Your task to perform on an android device: change the clock style Image 0: 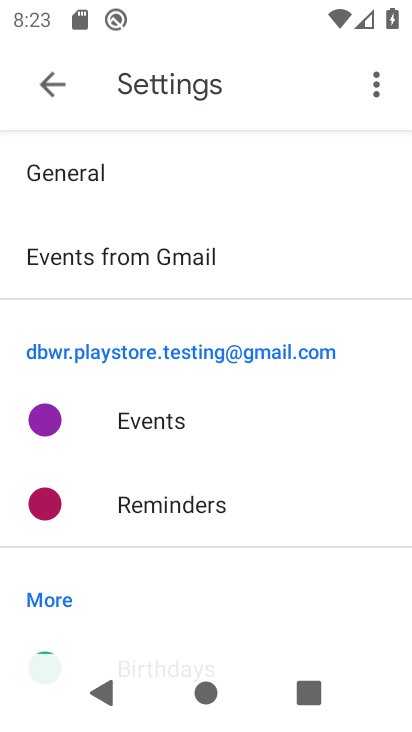
Step 0: press home button
Your task to perform on an android device: change the clock style Image 1: 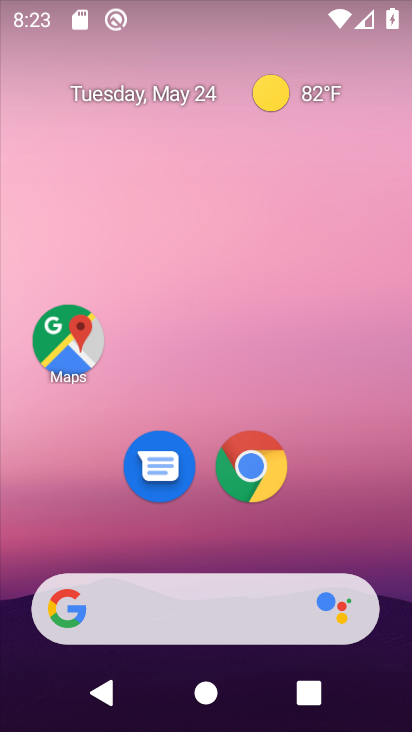
Step 1: drag from (158, 570) to (222, 216)
Your task to perform on an android device: change the clock style Image 2: 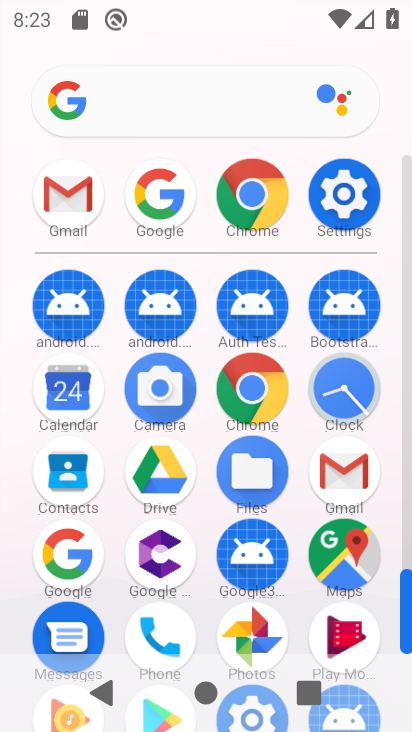
Step 2: click (330, 400)
Your task to perform on an android device: change the clock style Image 3: 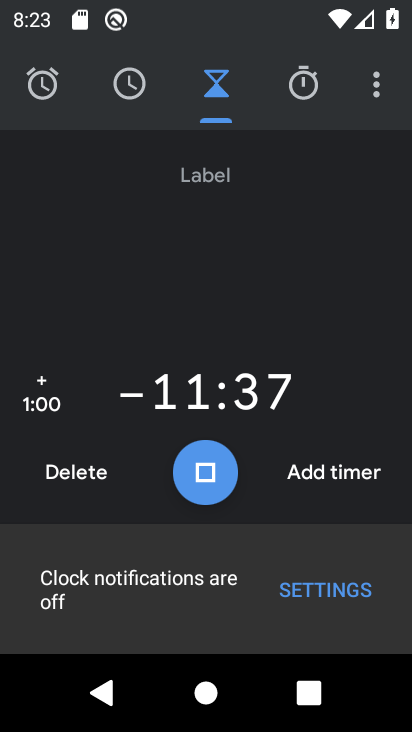
Step 3: click (369, 83)
Your task to perform on an android device: change the clock style Image 4: 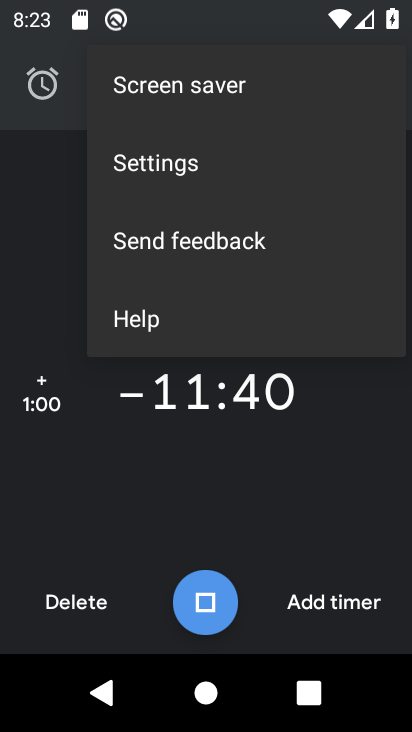
Step 4: click (172, 158)
Your task to perform on an android device: change the clock style Image 5: 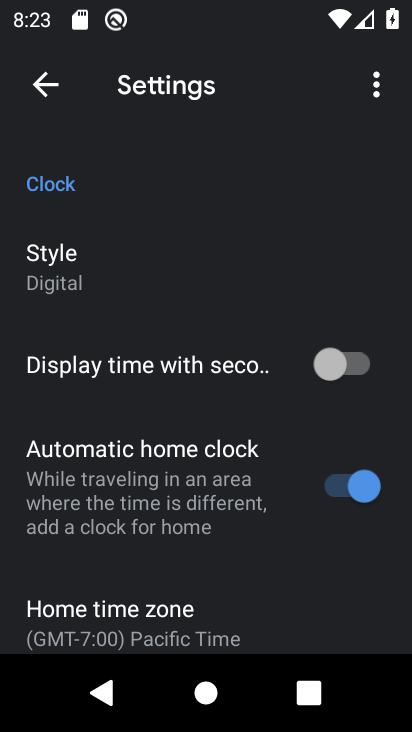
Step 5: drag from (66, 279) to (28, 279)
Your task to perform on an android device: change the clock style Image 6: 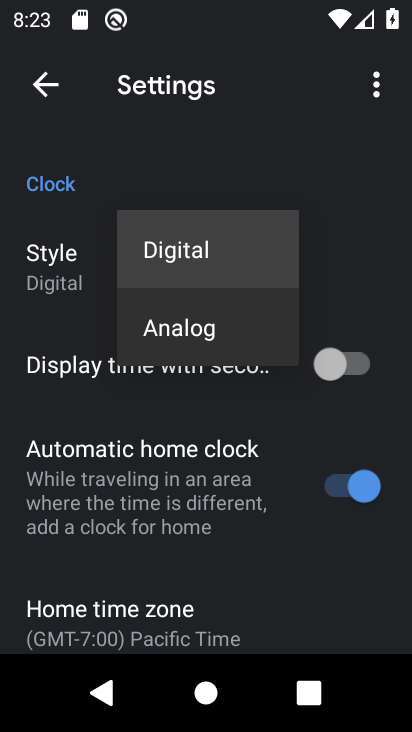
Step 6: click (189, 329)
Your task to perform on an android device: change the clock style Image 7: 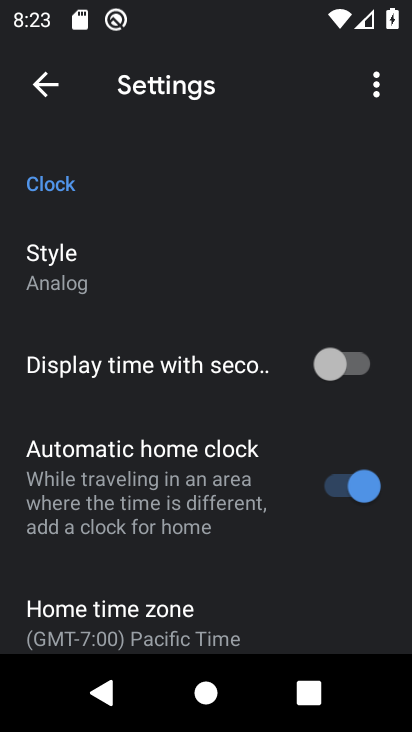
Step 7: task complete